Your task to perform on an android device: add a contact Image 0: 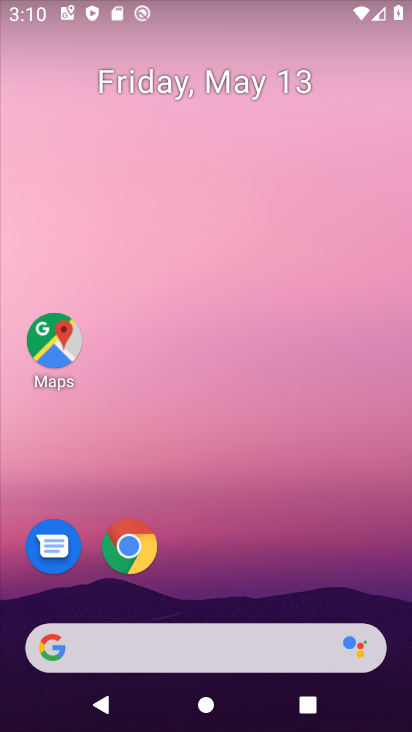
Step 0: drag from (178, 609) to (193, 412)
Your task to perform on an android device: add a contact Image 1: 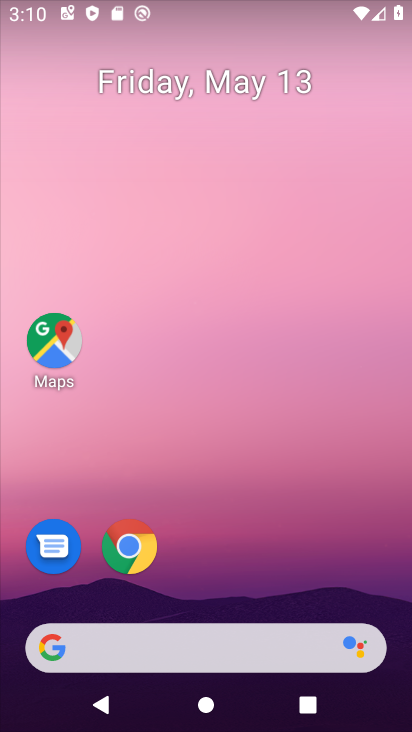
Step 1: drag from (225, 579) to (210, 168)
Your task to perform on an android device: add a contact Image 2: 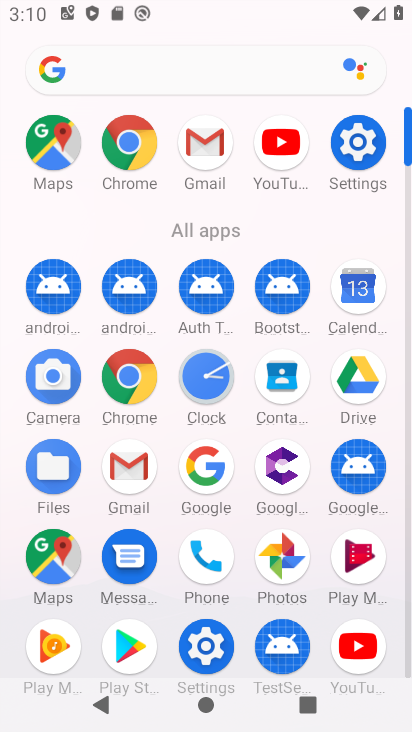
Step 2: click (281, 400)
Your task to perform on an android device: add a contact Image 3: 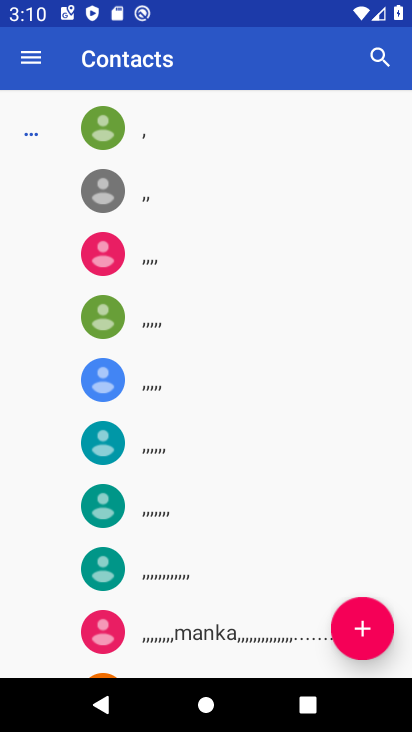
Step 3: click (357, 624)
Your task to perform on an android device: add a contact Image 4: 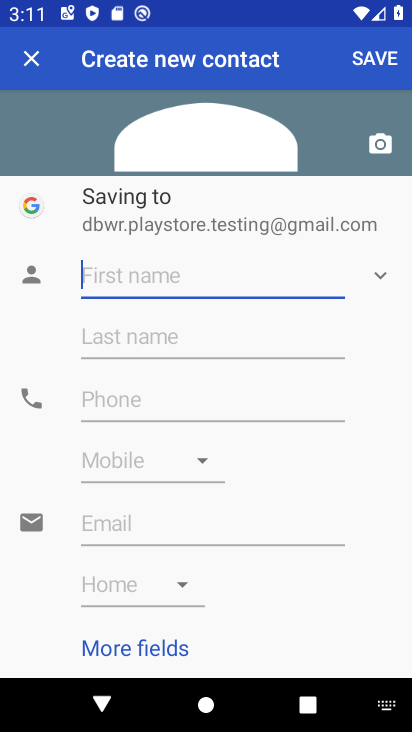
Step 4: type "cvbh"
Your task to perform on an android device: add a contact Image 5: 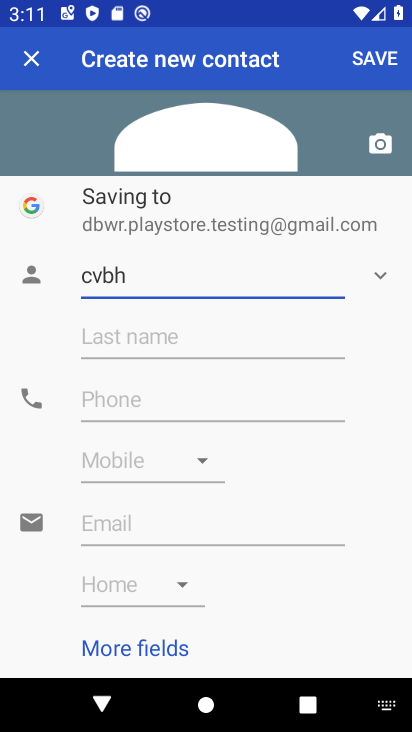
Step 5: click (302, 398)
Your task to perform on an android device: add a contact Image 6: 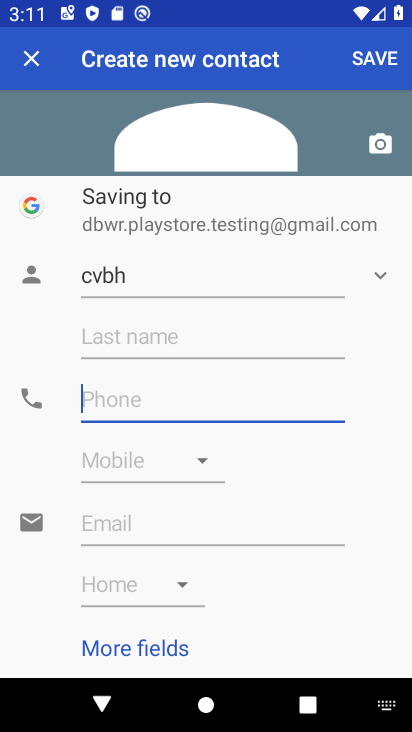
Step 6: type "76567890"
Your task to perform on an android device: add a contact Image 7: 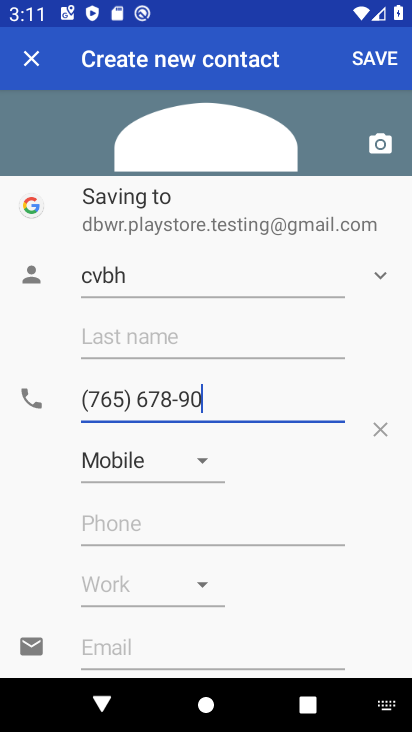
Step 7: click (372, 49)
Your task to perform on an android device: add a contact Image 8: 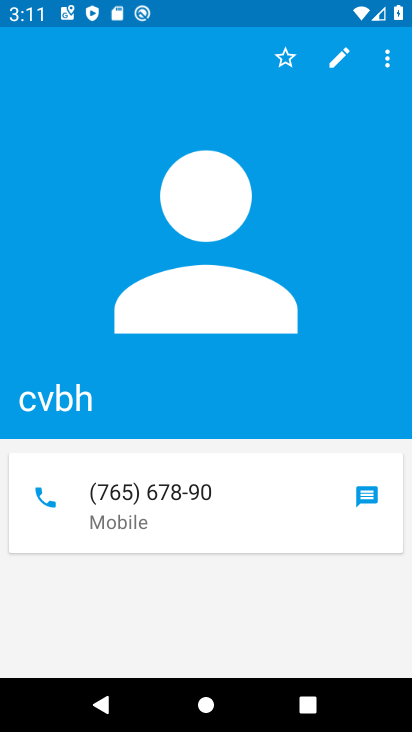
Step 8: task complete